Your task to perform on an android device: Show me the alarms in the clock app Image 0: 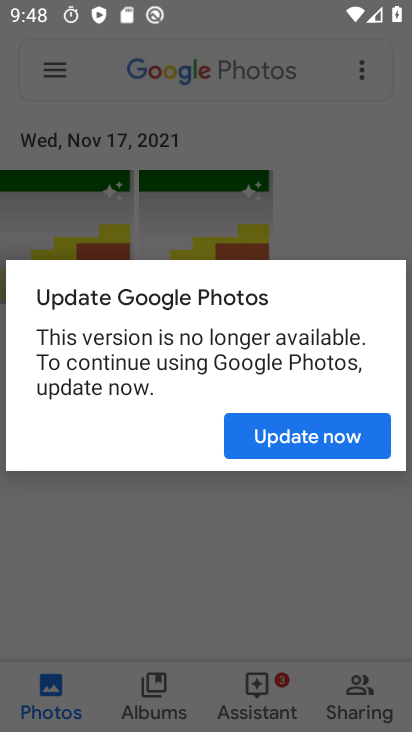
Step 0: press home button
Your task to perform on an android device: Show me the alarms in the clock app Image 1: 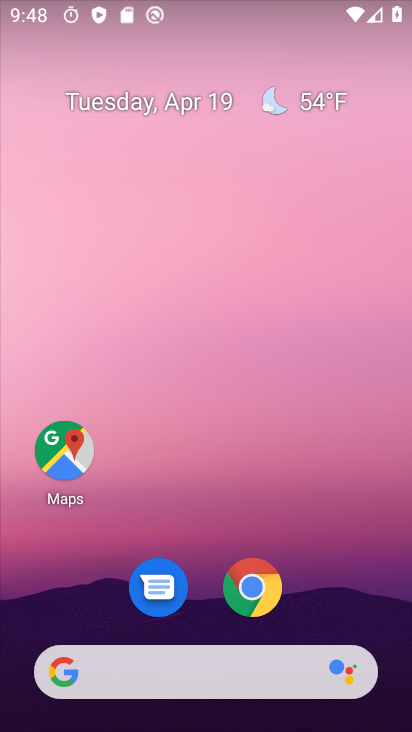
Step 1: drag from (313, 600) to (362, 39)
Your task to perform on an android device: Show me the alarms in the clock app Image 2: 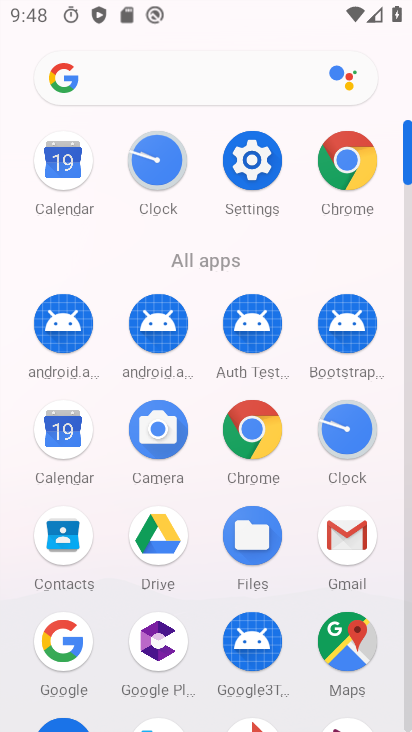
Step 2: click (331, 415)
Your task to perform on an android device: Show me the alarms in the clock app Image 3: 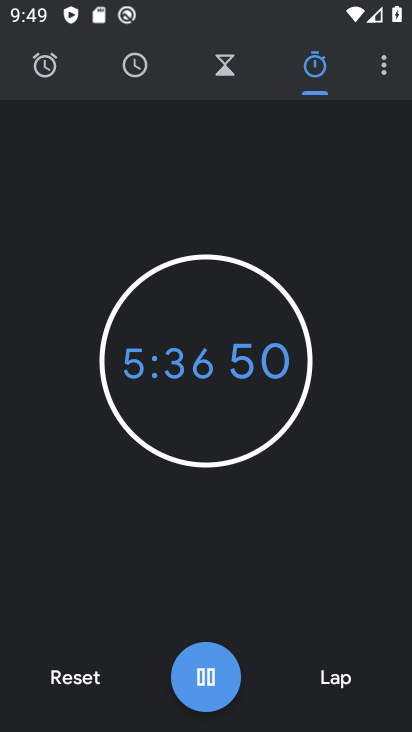
Step 3: click (46, 57)
Your task to perform on an android device: Show me the alarms in the clock app Image 4: 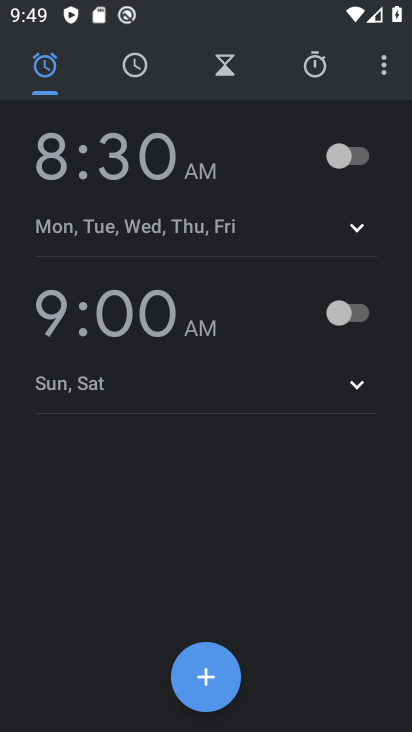
Step 4: click (108, 170)
Your task to perform on an android device: Show me the alarms in the clock app Image 5: 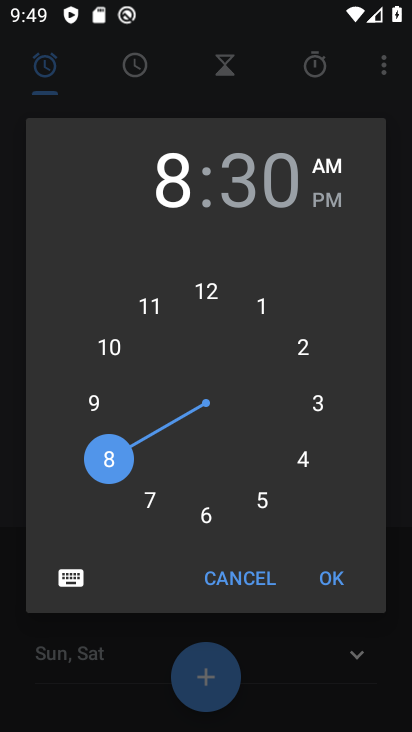
Step 5: task complete